Your task to perform on an android device: Open Maps and search for coffee Image 0: 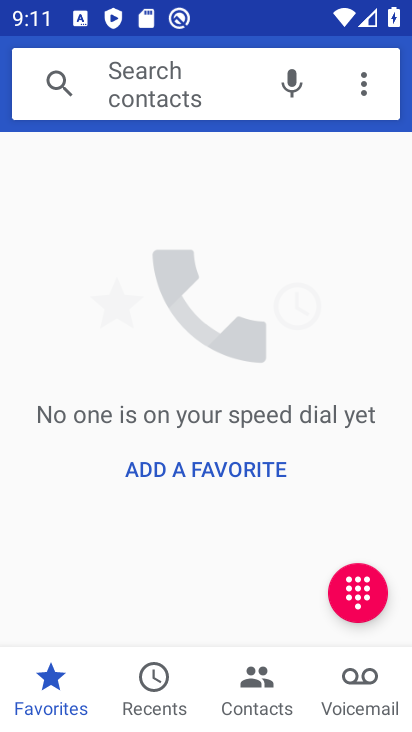
Step 0: press home button
Your task to perform on an android device: Open Maps and search for coffee Image 1: 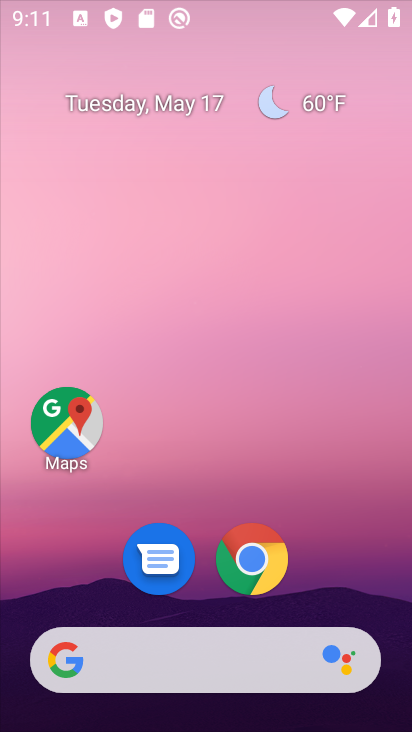
Step 1: drag from (237, 626) to (258, 228)
Your task to perform on an android device: Open Maps and search for coffee Image 2: 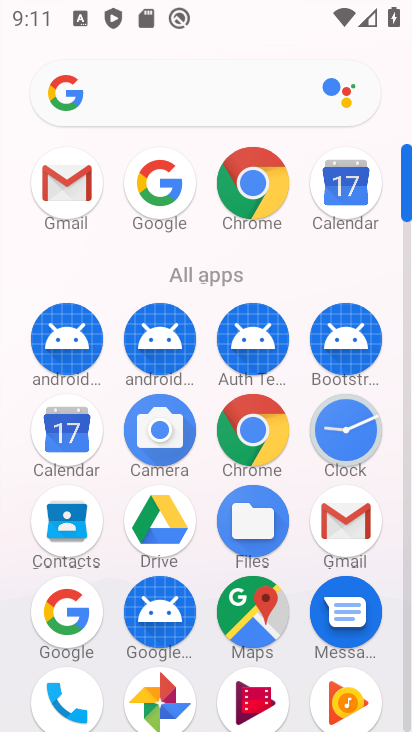
Step 2: click (244, 622)
Your task to perform on an android device: Open Maps and search for coffee Image 3: 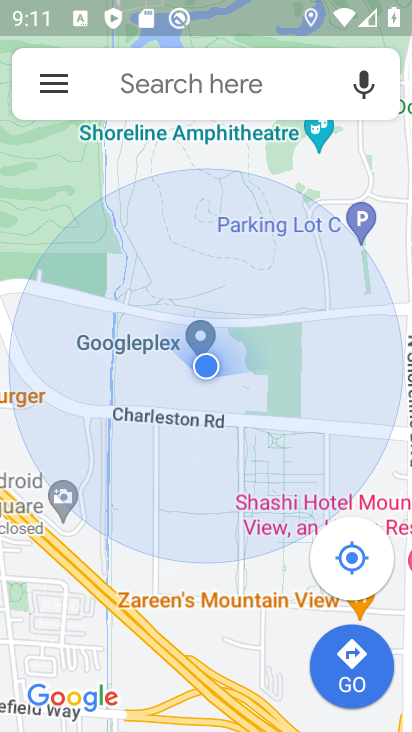
Step 3: click (231, 93)
Your task to perform on an android device: Open Maps and search for coffee Image 4: 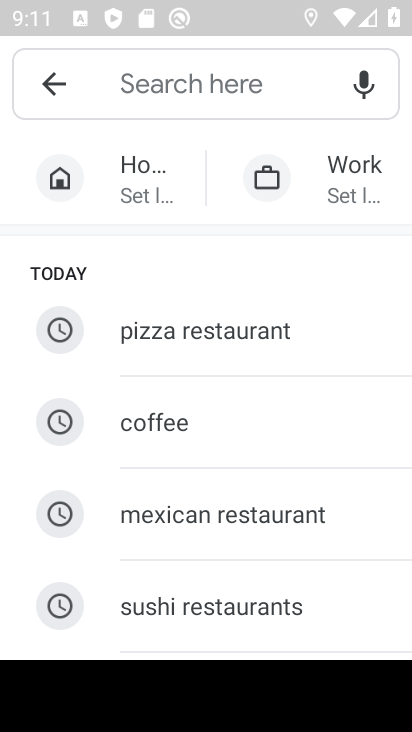
Step 4: click (207, 419)
Your task to perform on an android device: Open Maps and search for coffee Image 5: 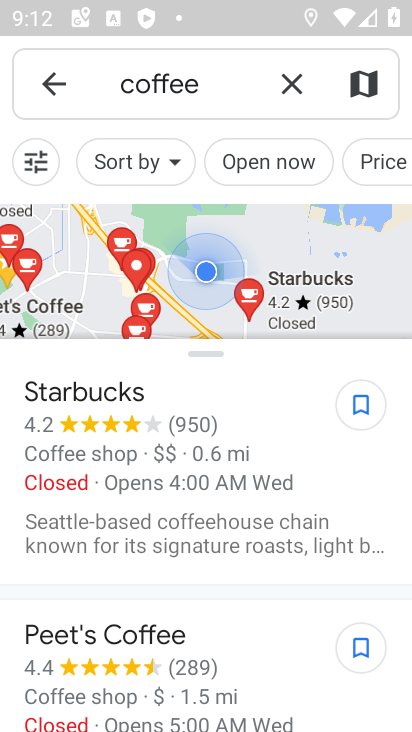
Step 5: task complete